Your task to perform on an android device: change alarm snooze length Image 0: 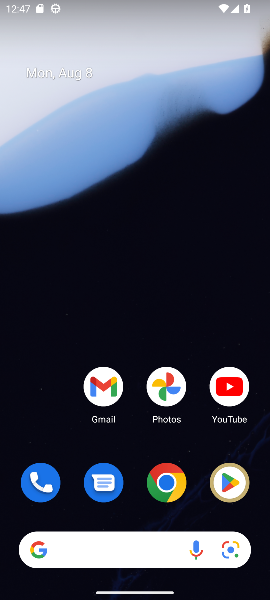
Step 0: drag from (115, 534) to (127, 44)
Your task to perform on an android device: change alarm snooze length Image 1: 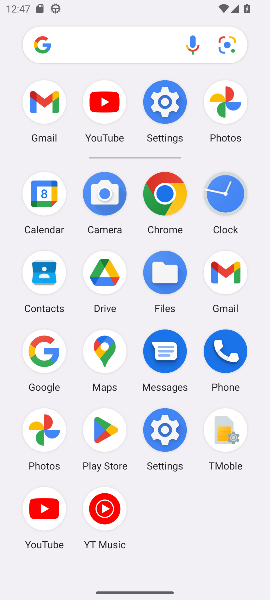
Step 1: click (218, 196)
Your task to perform on an android device: change alarm snooze length Image 2: 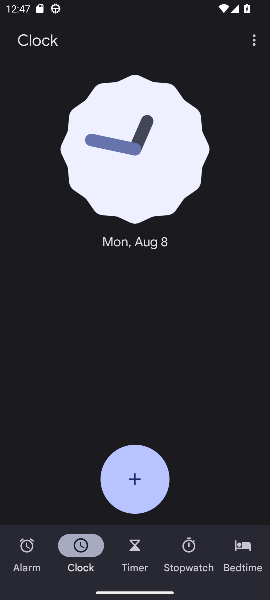
Step 2: click (252, 33)
Your task to perform on an android device: change alarm snooze length Image 3: 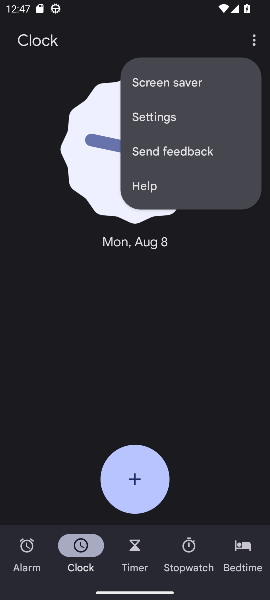
Step 3: click (165, 126)
Your task to perform on an android device: change alarm snooze length Image 4: 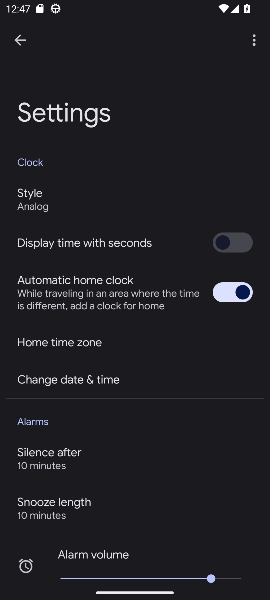
Step 4: click (102, 523)
Your task to perform on an android device: change alarm snooze length Image 5: 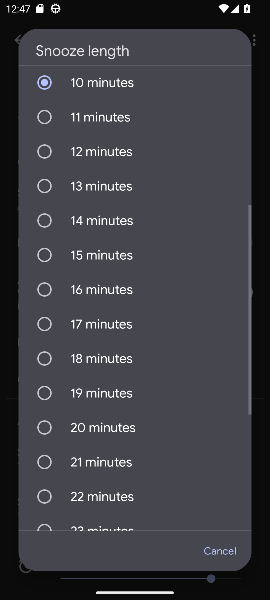
Step 5: click (46, 152)
Your task to perform on an android device: change alarm snooze length Image 6: 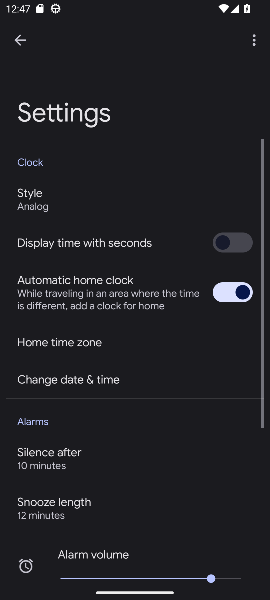
Step 6: task complete